Your task to perform on an android device: change timer sound Image 0: 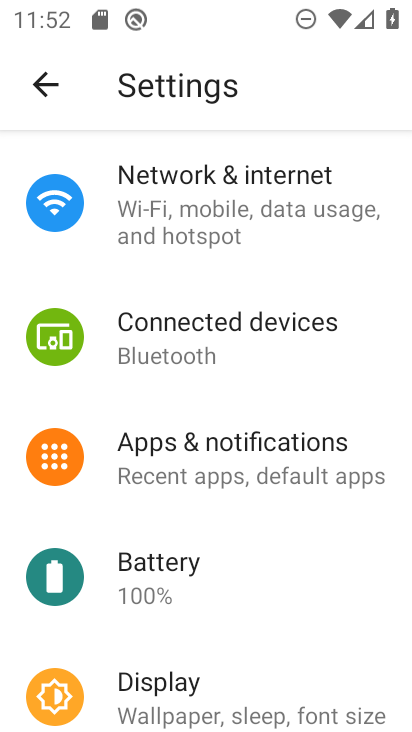
Step 0: press home button
Your task to perform on an android device: change timer sound Image 1: 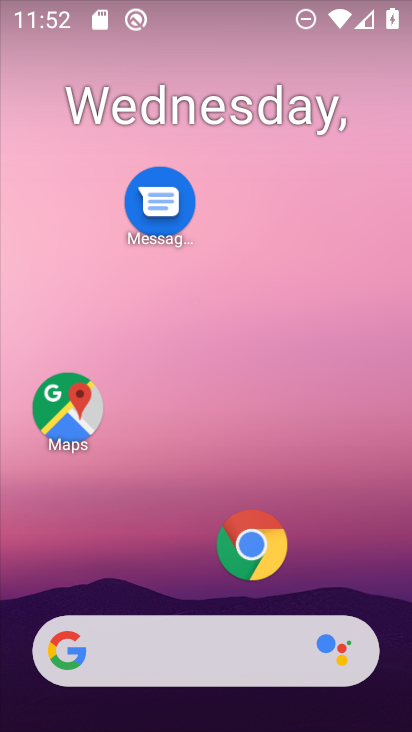
Step 1: drag from (191, 575) to (235, 219)
Your task to perform on an android device: change timer sound Image 2: 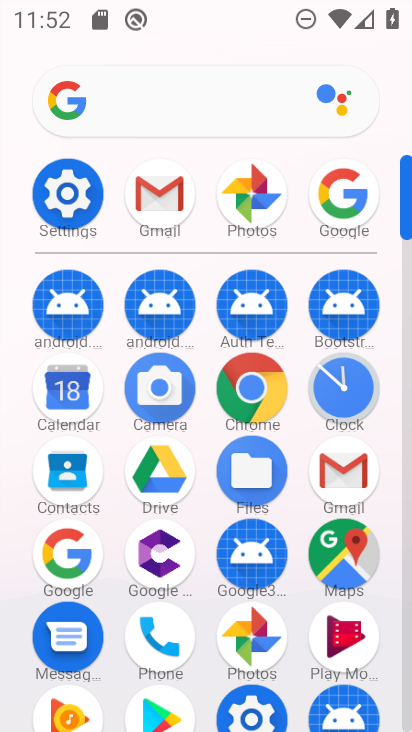
Step 2: click (324, 380)
Your task to perform on an android device: change timer sound Image 3: 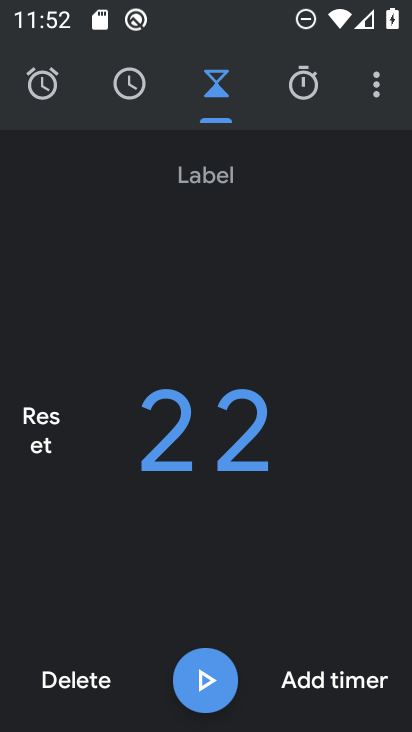
Step 3: click (367, 83)
Your task to perform on an android device: change timer sound Image 4: 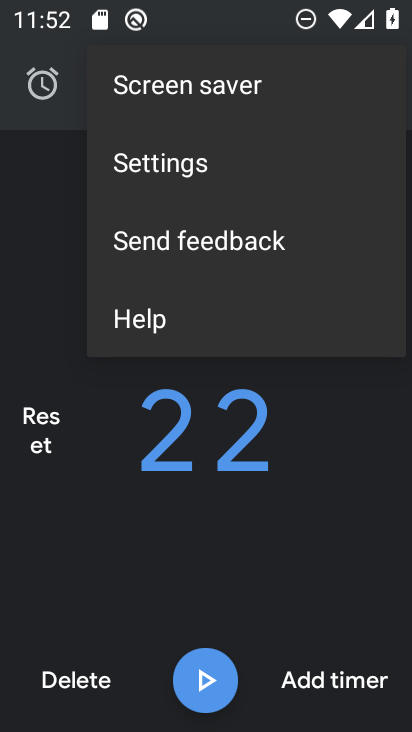
Step 4: click (142, 181)
Your task to perform on an android device: change timer sound Image 5: 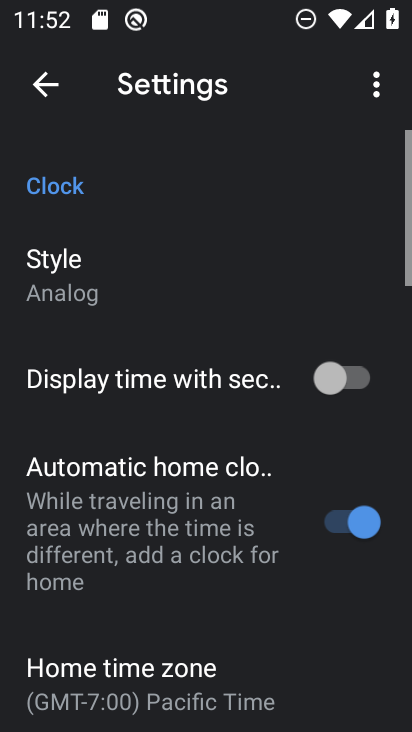
Step 5: drag from (155, 572) to (249, 260)
Your task to perform on an android device: change timer sound Image 6: 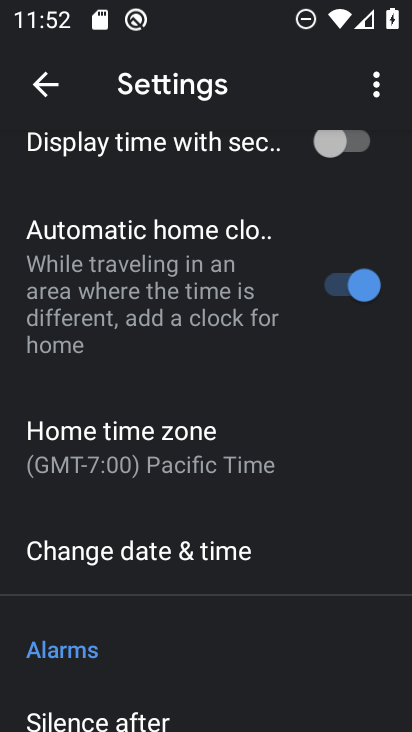
Step 6: drag from (196, 602) to (231, 358)
Your task to perform on an android device: change timer sound Image 7: 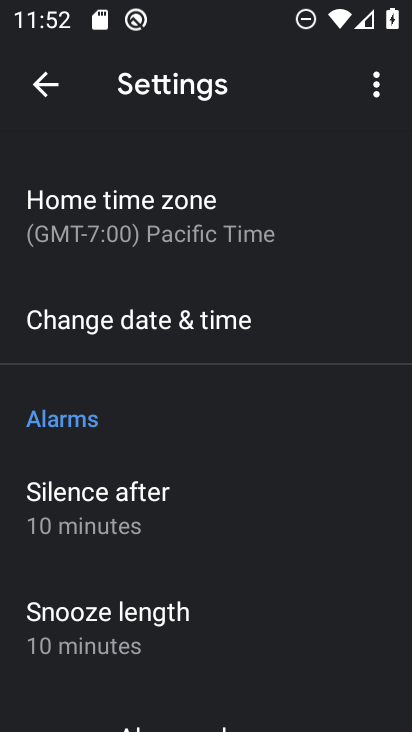
Step 7: drag from (183, 590) to (224, 370)
Your task to perform on an android device: change timer sound Image 8: 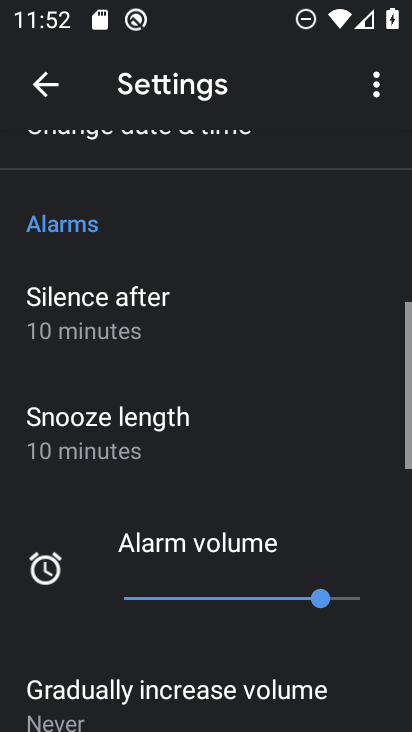
Step 8: drag from (199, 593) to (237, 324)
Your task to perform on an android device: change timer sound Image 9: 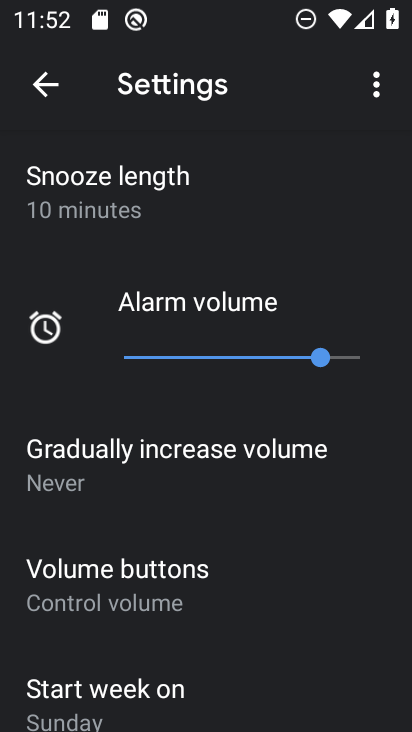
Step 9: drag from (184, 625) to (198, 379)
Your task to perform on an android device: change timer sound Image 10: 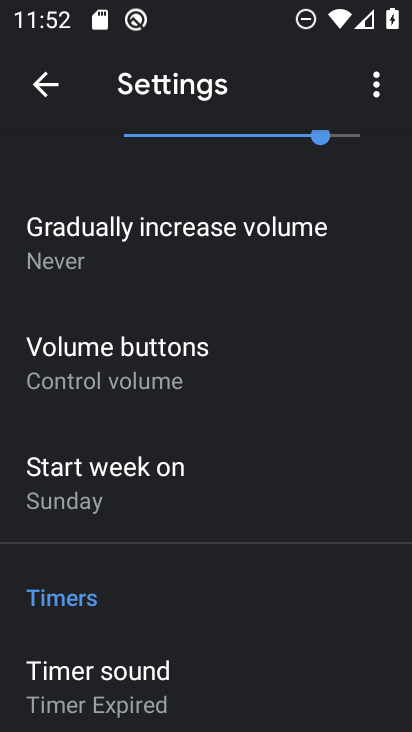
Step 10: click (161, 690)
Your task to perform on an android device: change timer sound Image 11: 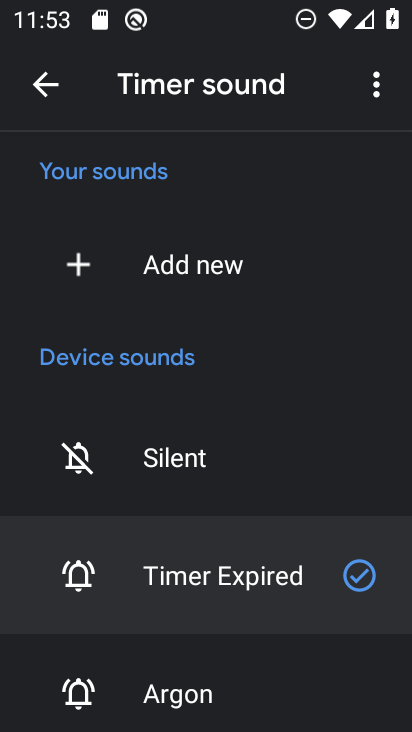
Step 11: click (231, 687)
Your task to perform on an android device: change timer sound Image 12: 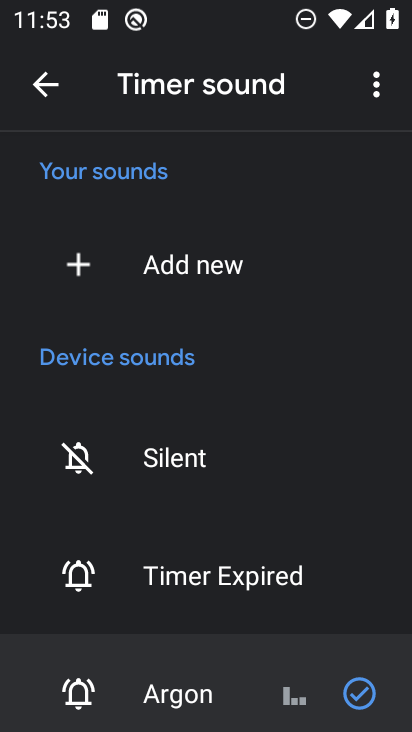
Step 12: task complete